Your task to perform on an android device: add a contact in the contacts app Image 0: 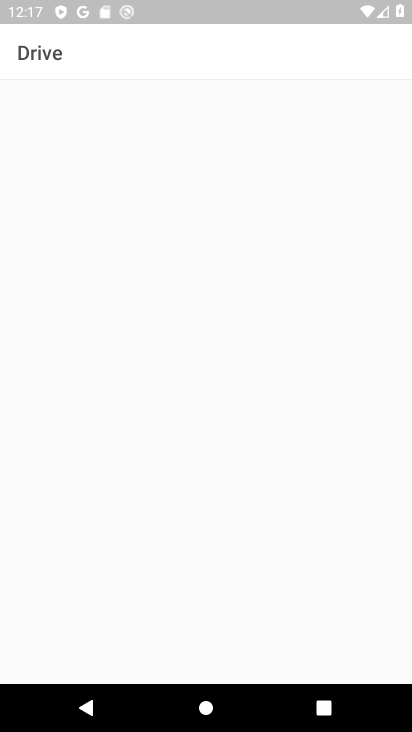
Step 0: drag from (199, 612) to (281, 88)
Your task to perform on an android device: add a contact in the contacts app Image 1: 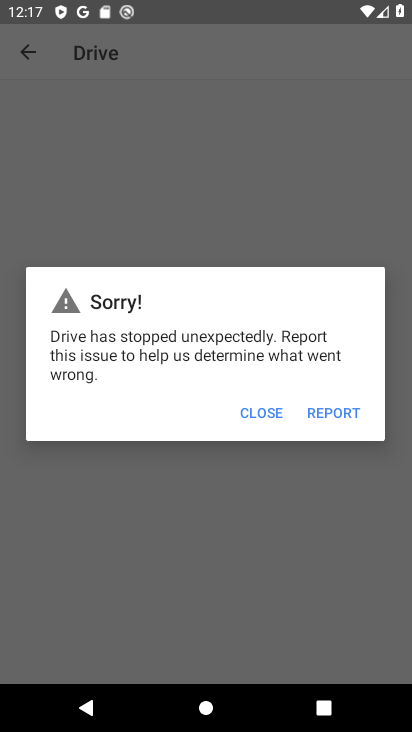
Step 1: press home button
Your task to perform on an android device: add a contact in the contacts app Image 2: 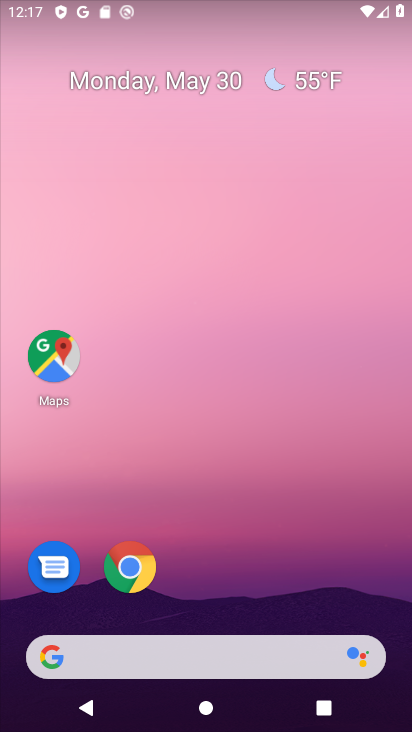
Step 2: drag from (213, 628) to (235, 0)
Your task to perform on an android device: add a contact in the contacts app Image 3: 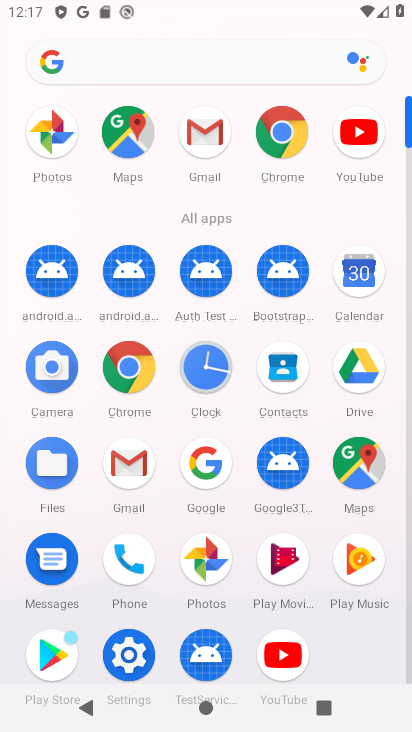
Step 3: click (280, 356)
Your task to perform on an android device: add a contact in the contacts app Image 4: 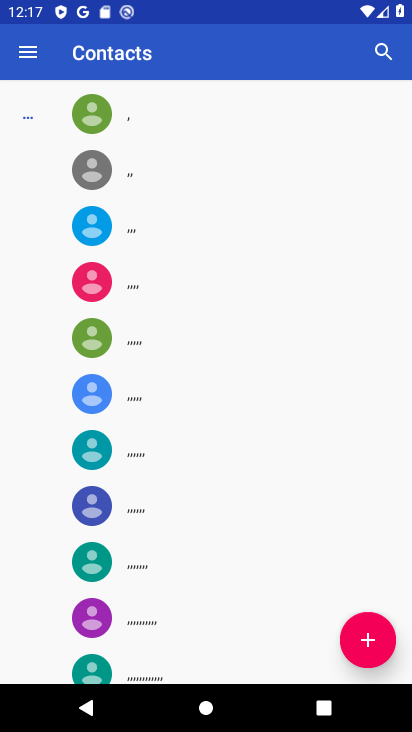
Step 4: click (370, 639)
Your task to perform on an android device: add a contact in the contacts app Image 5: 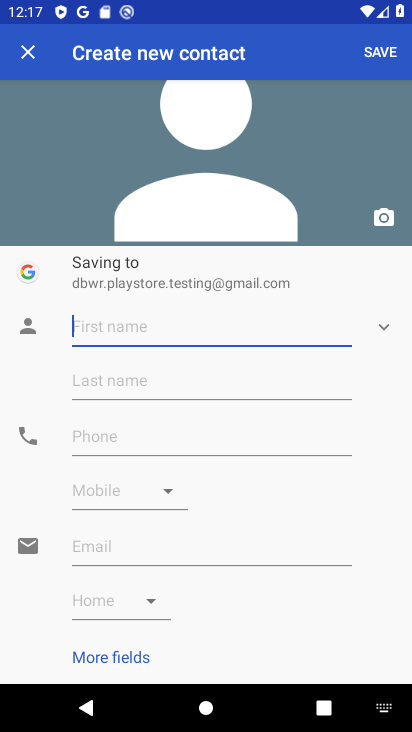
Step 5: type "bvgvg"
Your task to perform on an android device: add a contact in the contacts app Image 6: 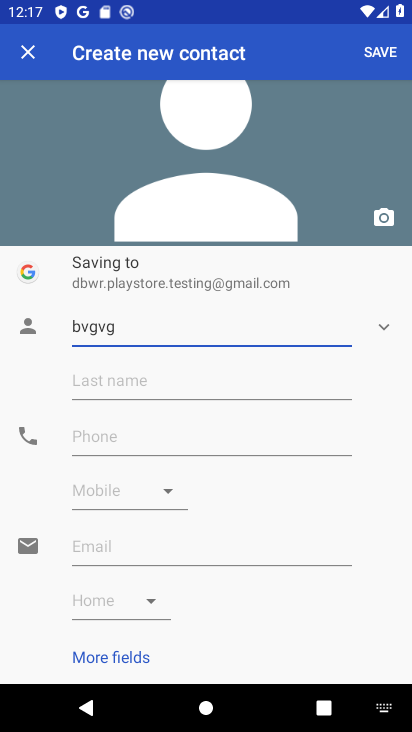
Step 6: click (385, 47)
Your task to perform on an android device: add a contact in the contacts app Image 7: 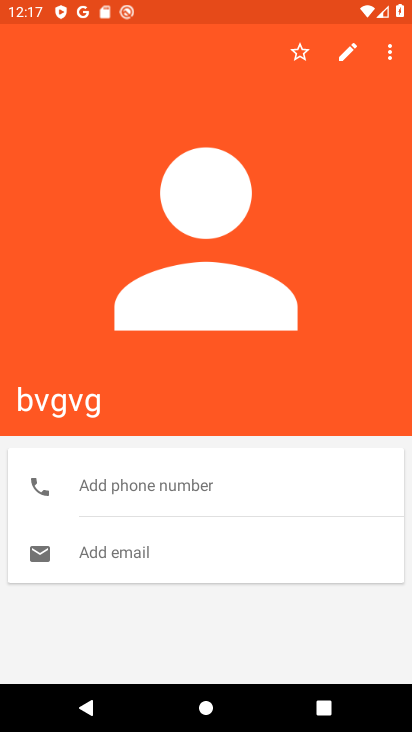
Step 7: task complete